Your task to perform on an android device: open app "DoorDash - Dasher" Image 0: 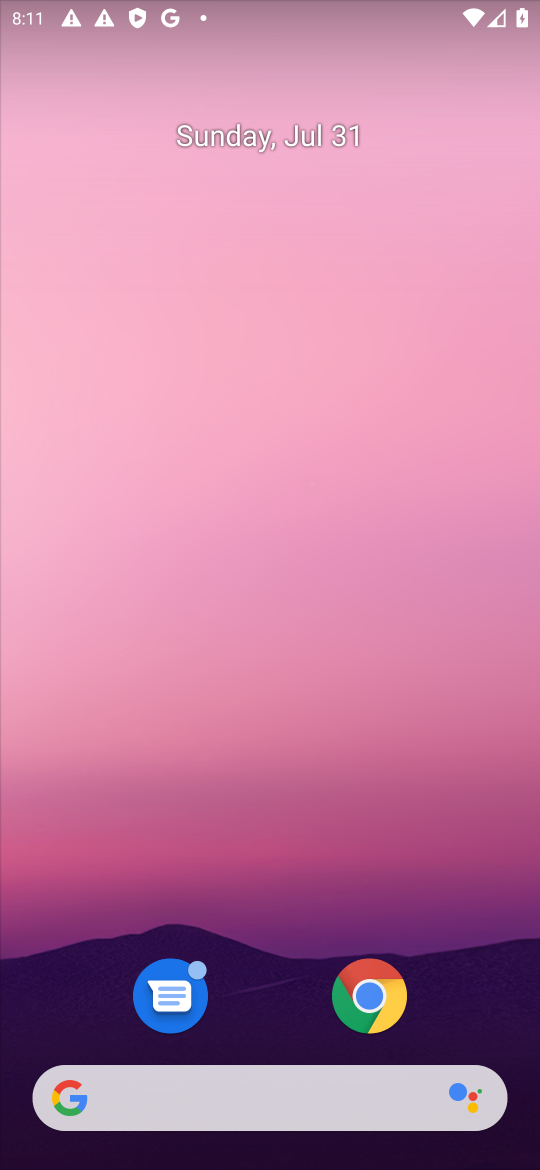
Step 0: drag from (492, 1014) to (477, 119)
Your task to perform on an android device: open app "DoorDash - Dasher" Image 1: 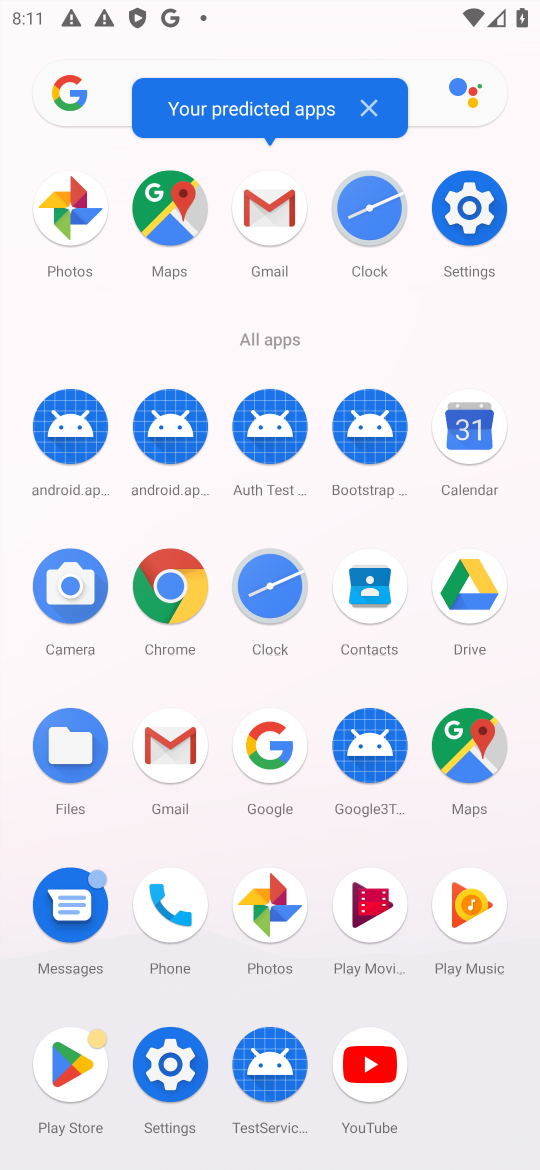
Step 1: click (53, 1083)
Your task to perform on an android device: open app "DoorDash - Dasher" Image 2: 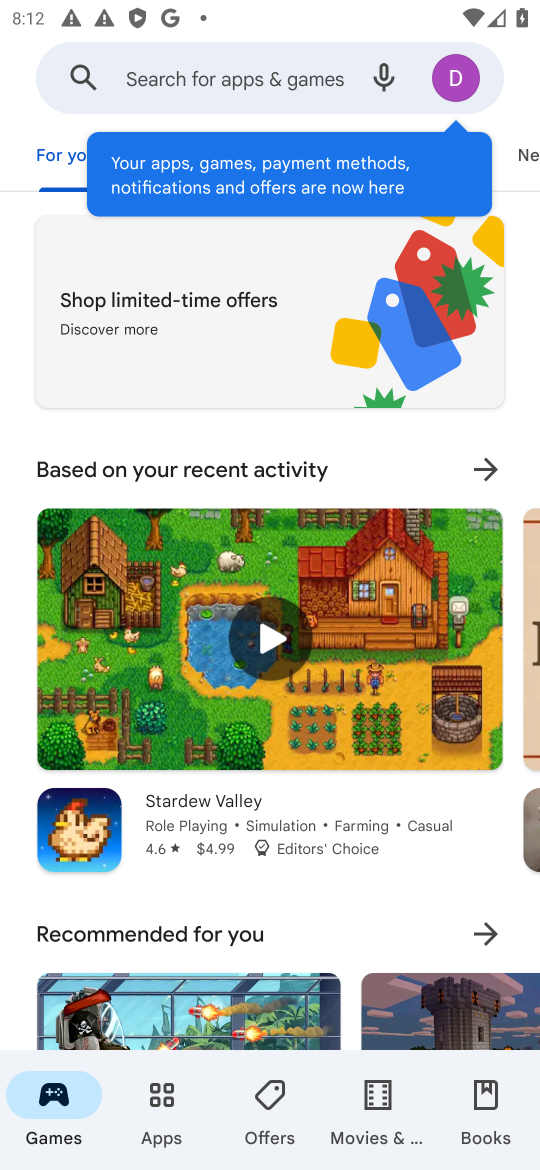
Step 2: click (239, 78)
Your task to perform on an android device: open app "DoorDash - Dasher" Image 3: 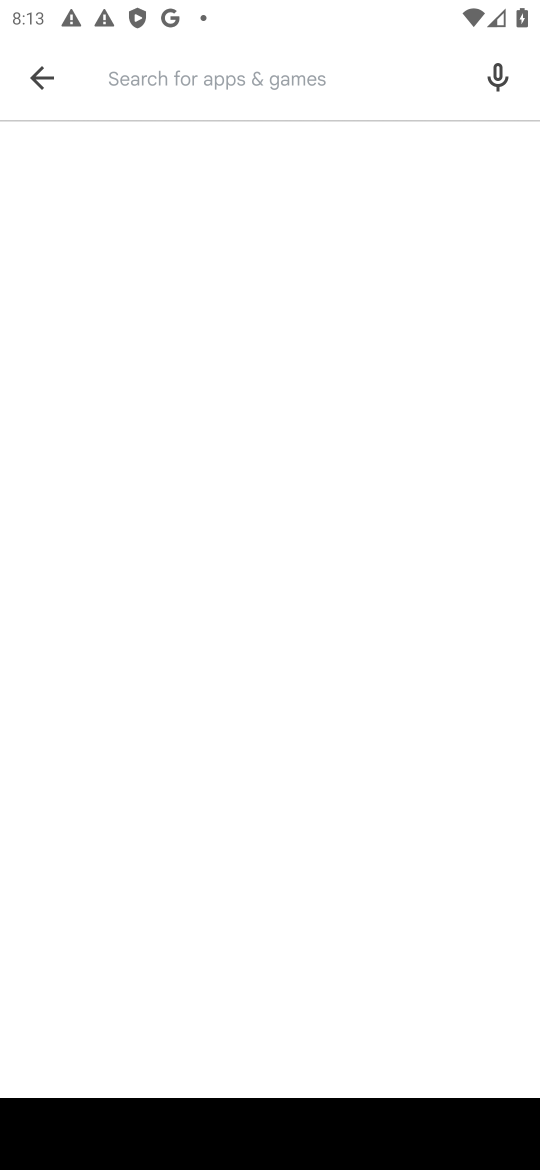
Step 3: type "doordash dasher"
Your task to perform on an android device: open app "DoorDash - Dasher" Image 4: 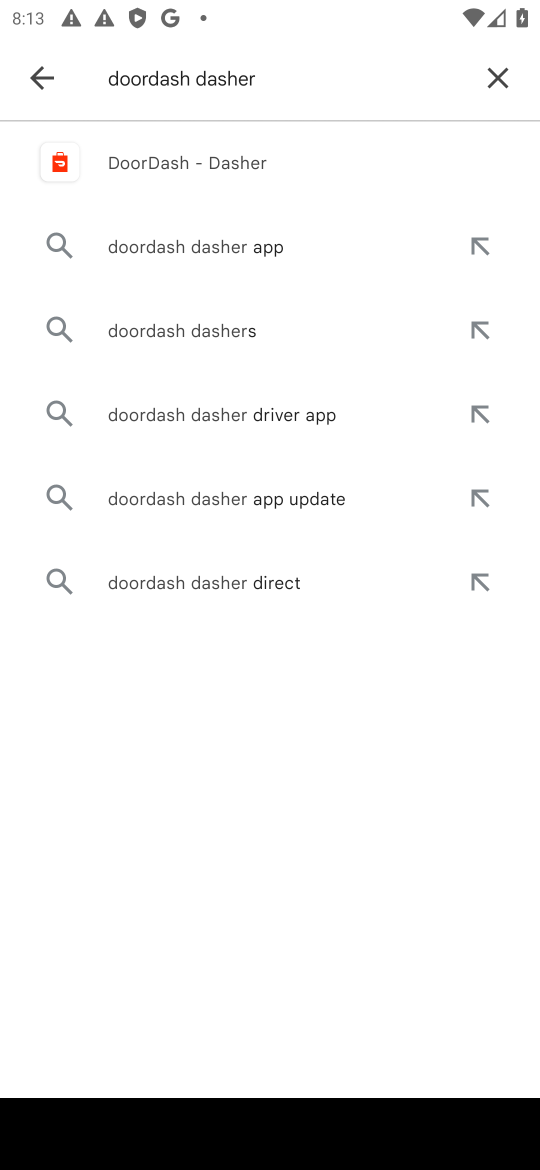
Step 4: click (255, 170)
Your task to perform on an android device: open app "DoorDash - Dasher" Image 5: 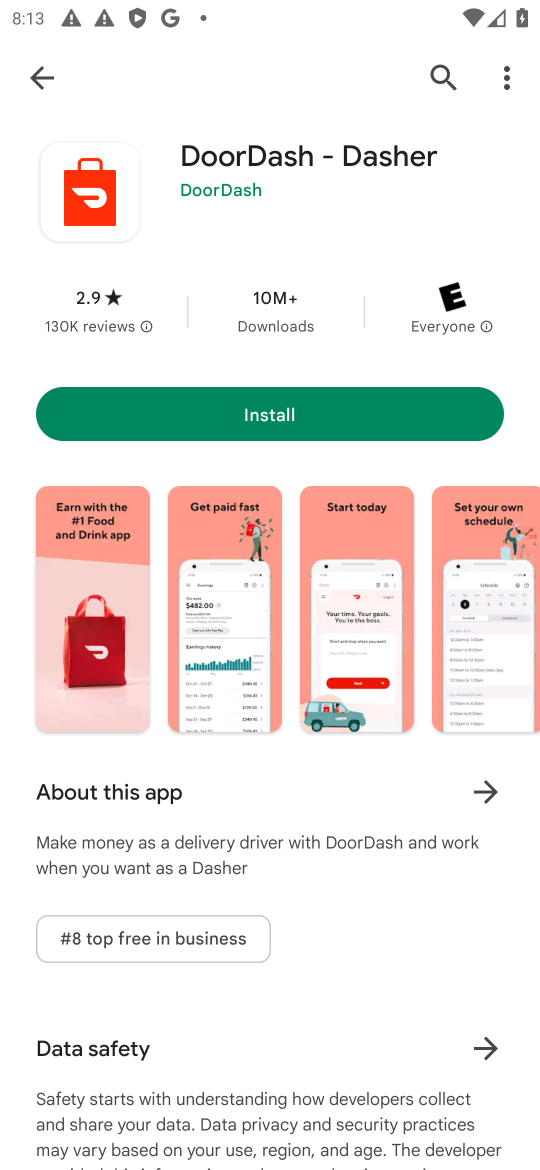
Step 5: task complete